Your task to perform on an android device: Go to sound settings Image 0: 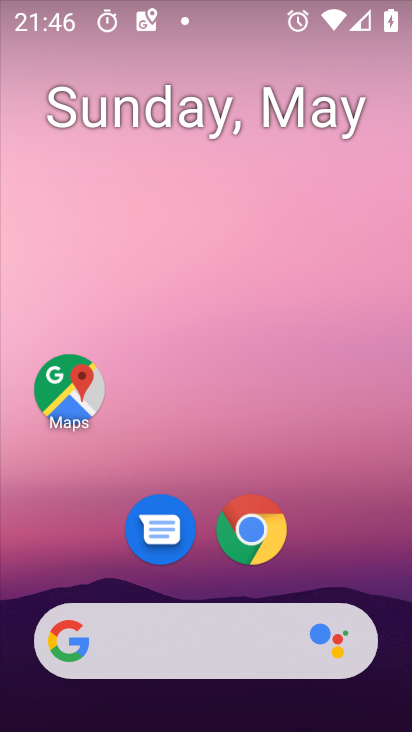
Step 0: drag from (343, 577) to (352, 10)
Your task to perform on an android device: Go to sound settings Image 1: 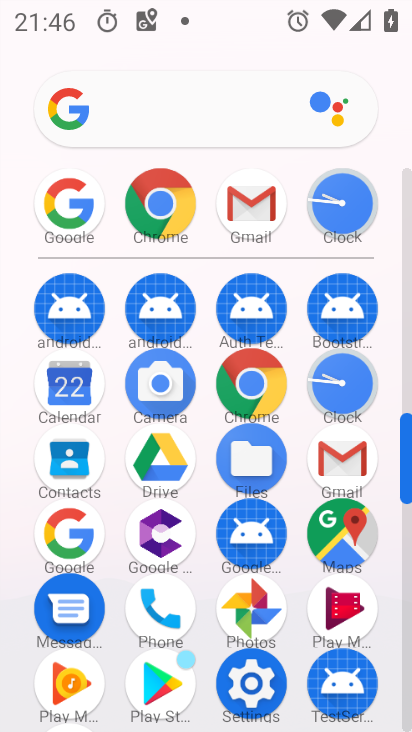
Step 1: click (258, 678)
Your task to perform on an android device: Go to sound settings Image 2: 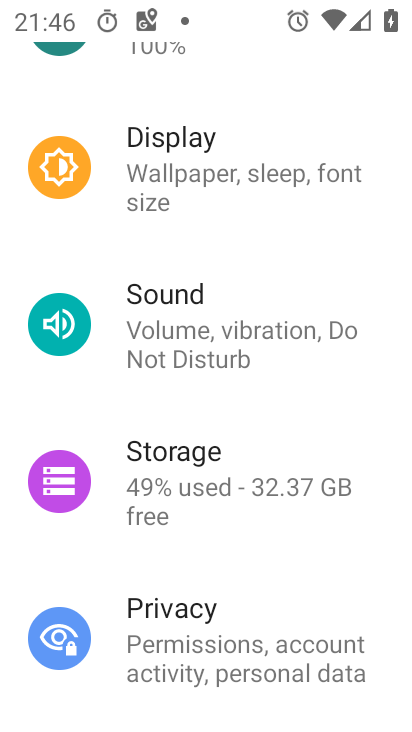
Step 2: click (202, 344)
Your task to perform on an android device: Go to sound settings Image 3: 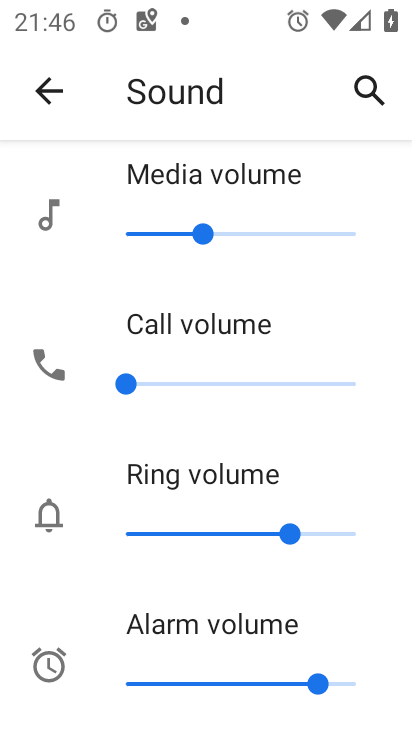
Step 3: task complete